Your task to perform on an android device: toggle notification dots Image 0: 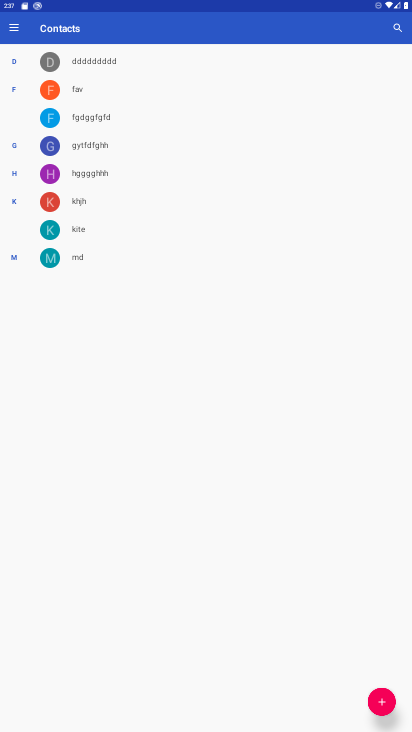
Step 0: press home button
Your task to perform on an android device: toggle notification dots Image 1: 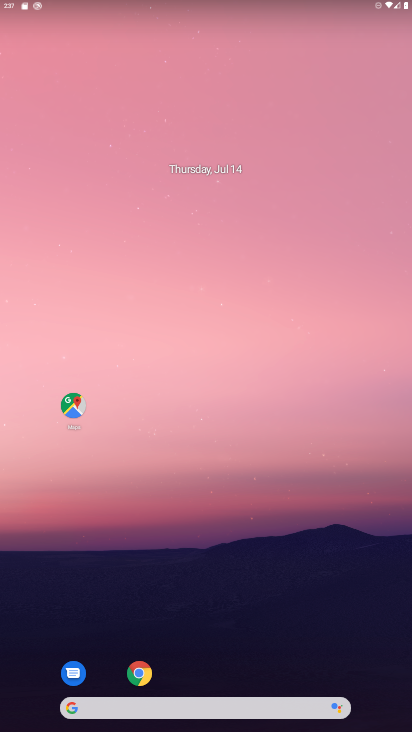
Step 1: drag from (243, 693) to (268, 261)
Your task to perform on an android device: toggle notification dots Image 2: 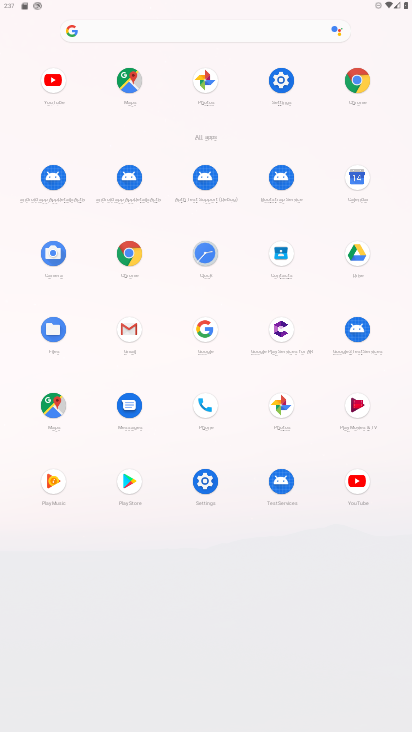
Step 2: click (201, 487)
Your task to perform on an android device: toggle notification dots Image 3: 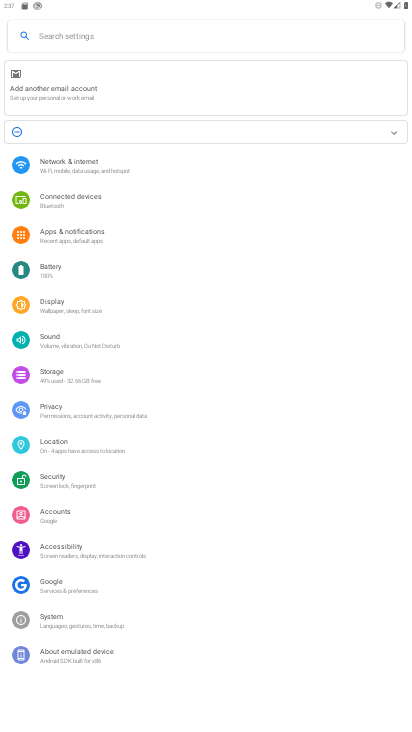
Step 3: click (114, 240)
Your task to perform on an android device: toggle notification dots Image 4: 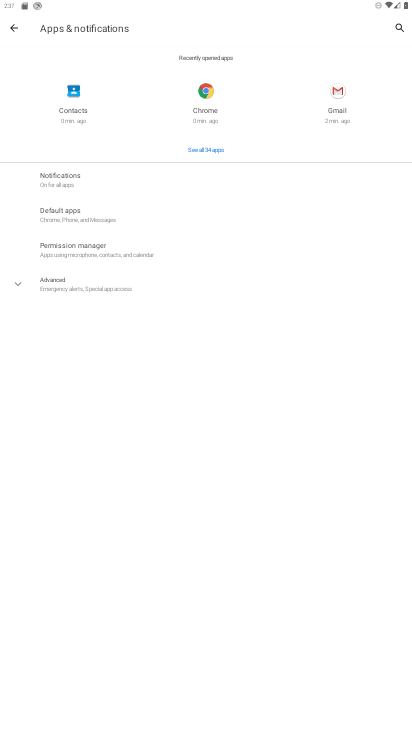
Step 4: click (79, 188)
Your task to perform on an android device: toggle notification dots Image 5: 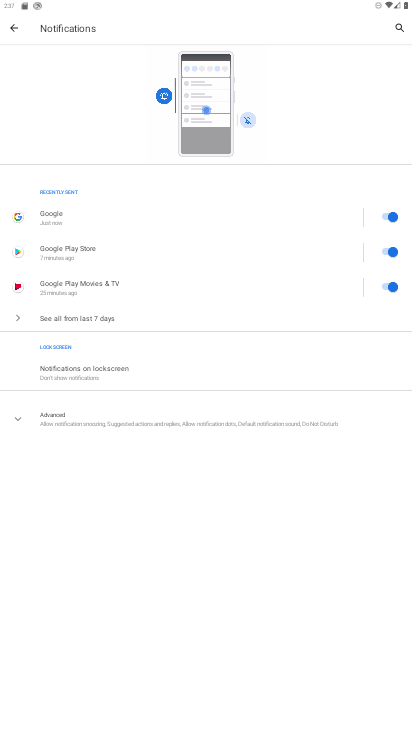
Step 5: click (84, 412)
Your task to perform on an android device: toggle notification dots Image 6: 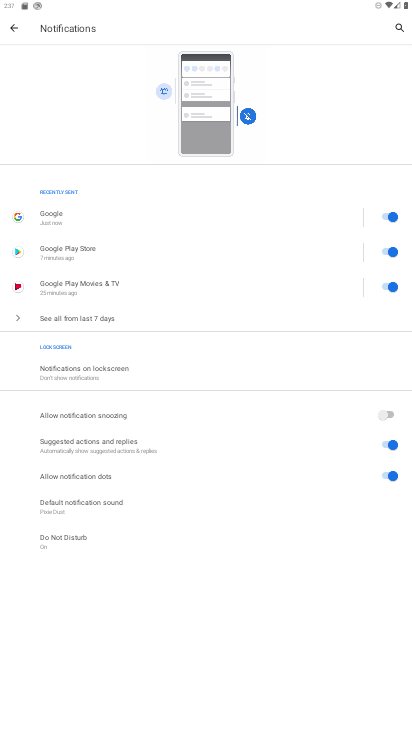
Step 6: click (386, 470)
Your task to perform on an android device: toggle notification dots Image 7: 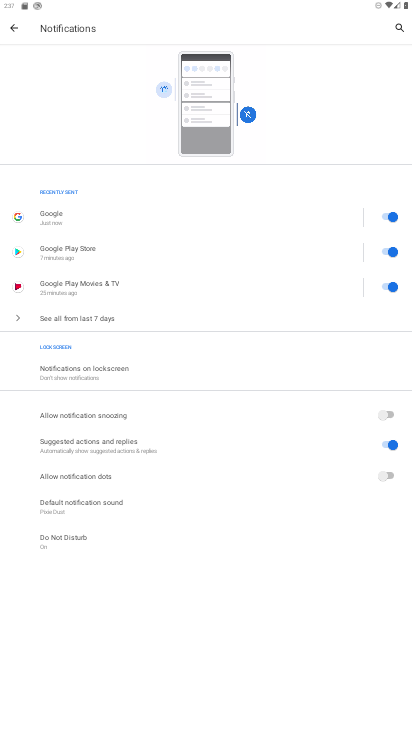
Step 7: task complete